Your task to perform on an android device: turn on improve location accuracy Image 0: 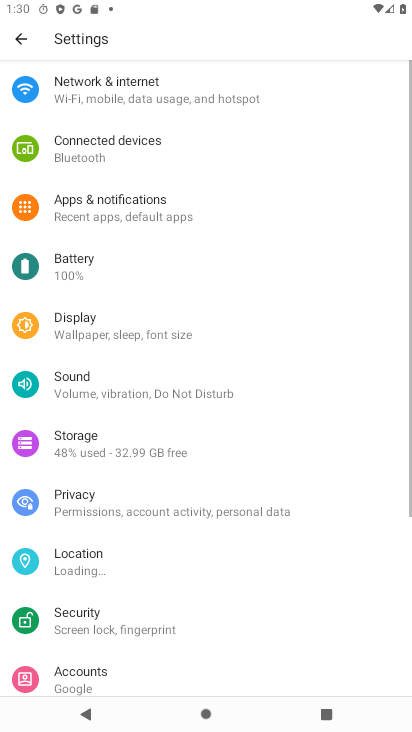
Step 0: click (180, 46)
Your task to perform on an android device: turn on improve location accuracy Image 1: 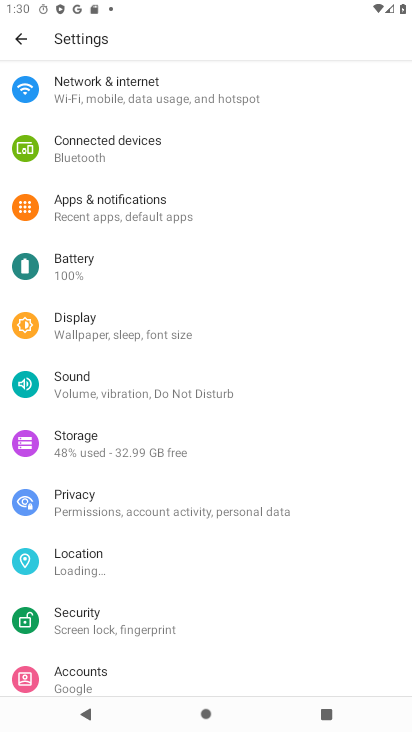
Step 1: press home button
Your task to perform on an android device: turn on improve location accuracy Image 2: 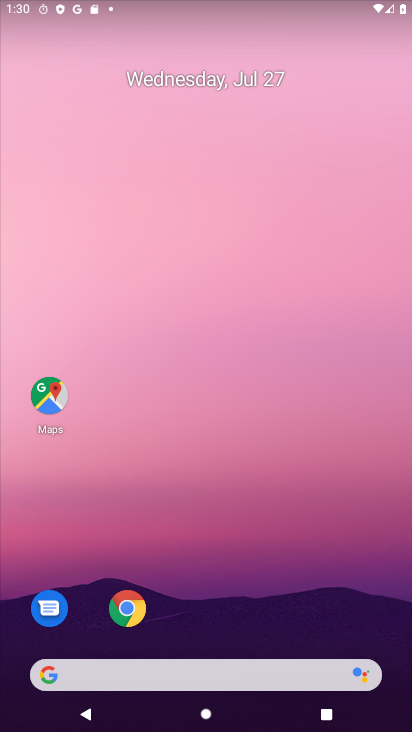
Step 2: drag from (190, 621) to (180, 161)
Your task to perform on an android device: turn on improve location accuracy Image 3: 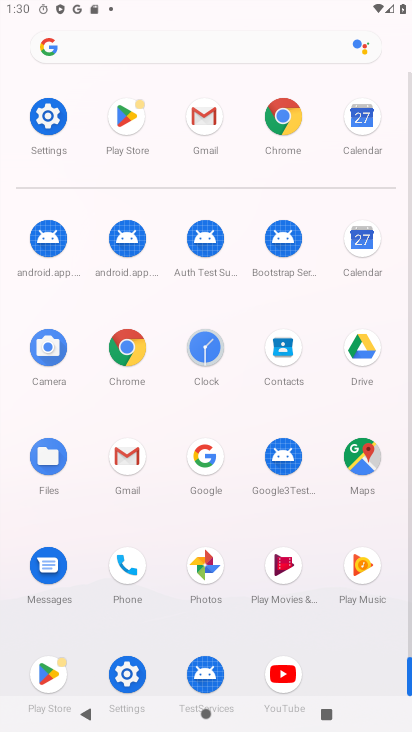
Step 3: click (128, 675)
Your task to perform on an android device: turn on improve location accuracy Image 4: 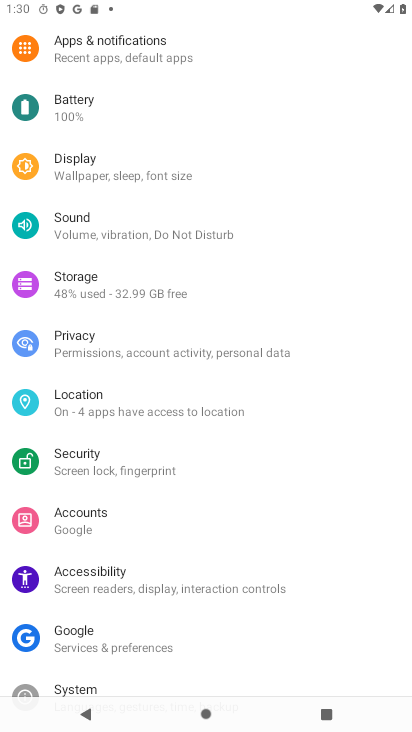
Step 4: click (112, 407)
Your task to perform on an android device: turn on improve location accuracy Image 5: 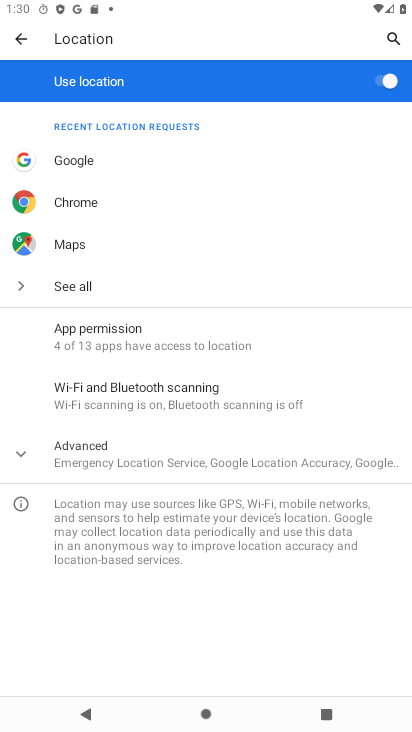
Step 5: click (89, 454)
Your task to perform on an android device: turn on improve location accuracy Image 6: 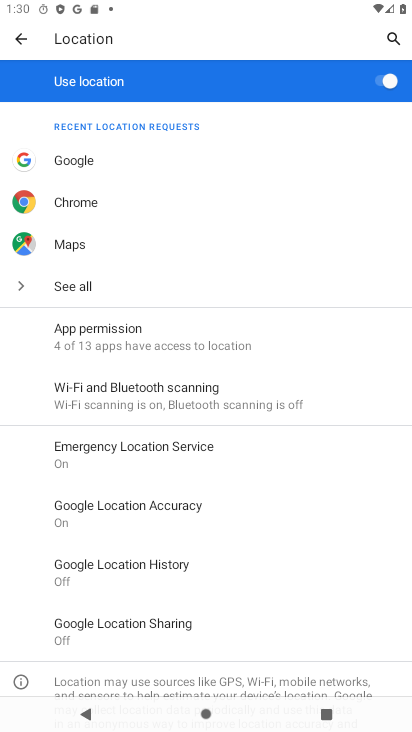
Step 6: click (103, 508)
Your task to perform on an android device: turn on improve location accuracy Image 7: 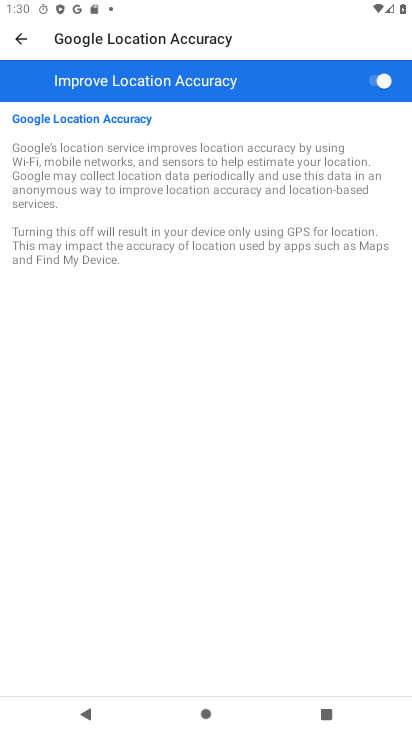
Step 7: task complete